Your task to perform on an android device: Open Chrome and go to settings Image 0: 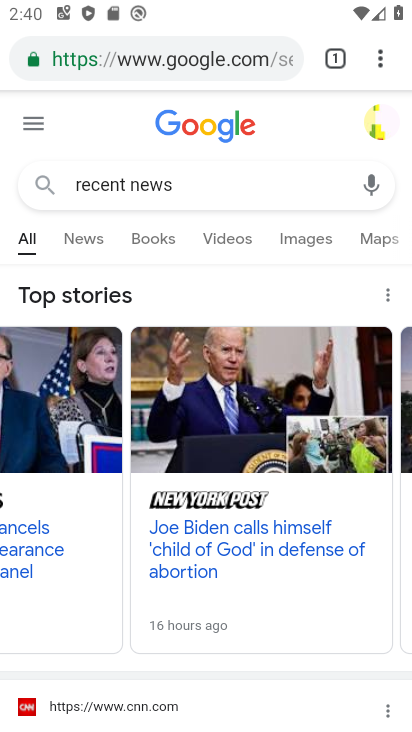
Step 0: press back button
Your task to perform on an android device: Open Chrome and go to settings Image 1: 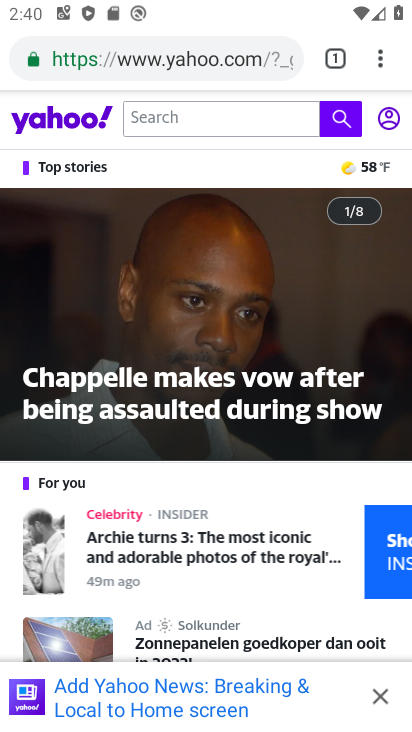
Step 1: task complete